Your task to perform on an android device: open app "PlayWell" (install if not already installed) and go to login screen Image 0: 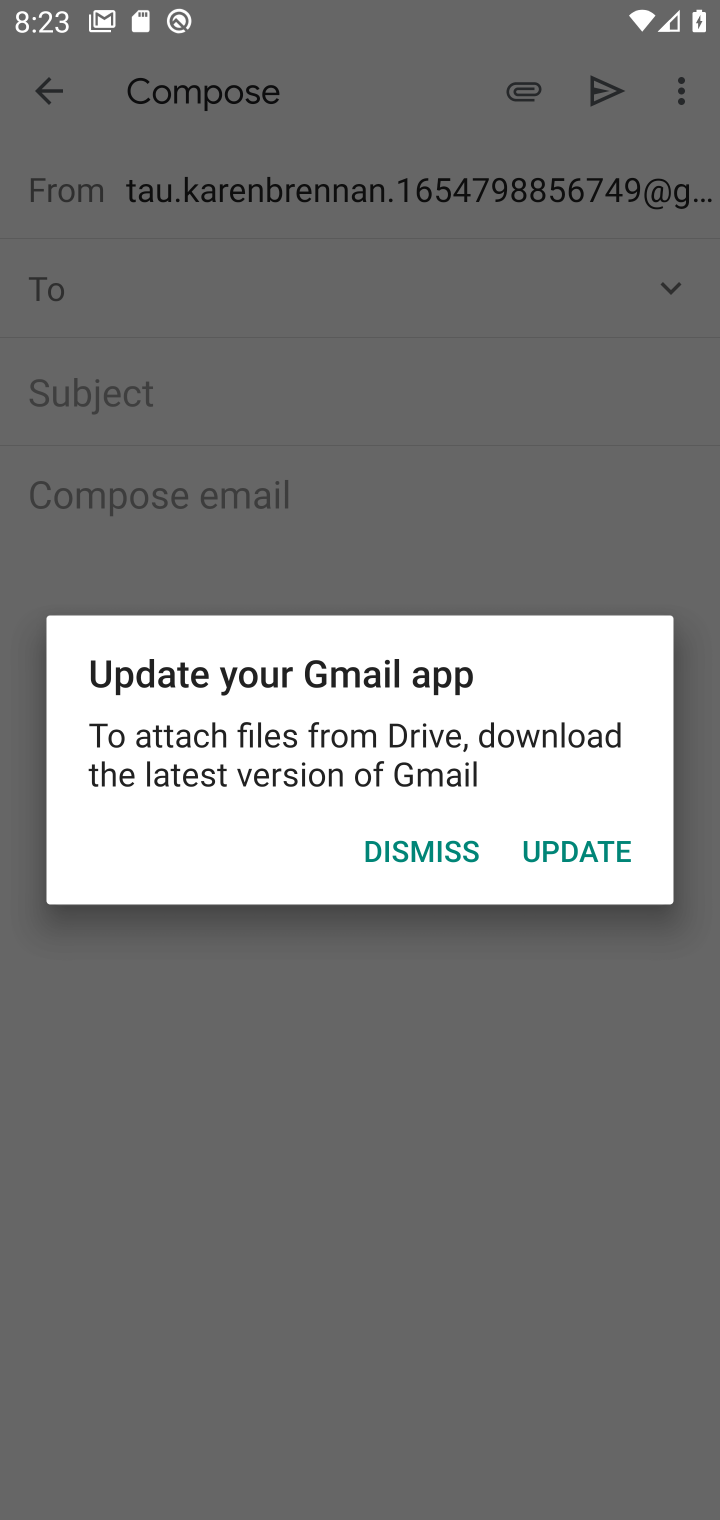
Step 0: press home button
Your task to perform on an android device: open app "PlayWell" (install if not already installed) and go to login screen Image 1: 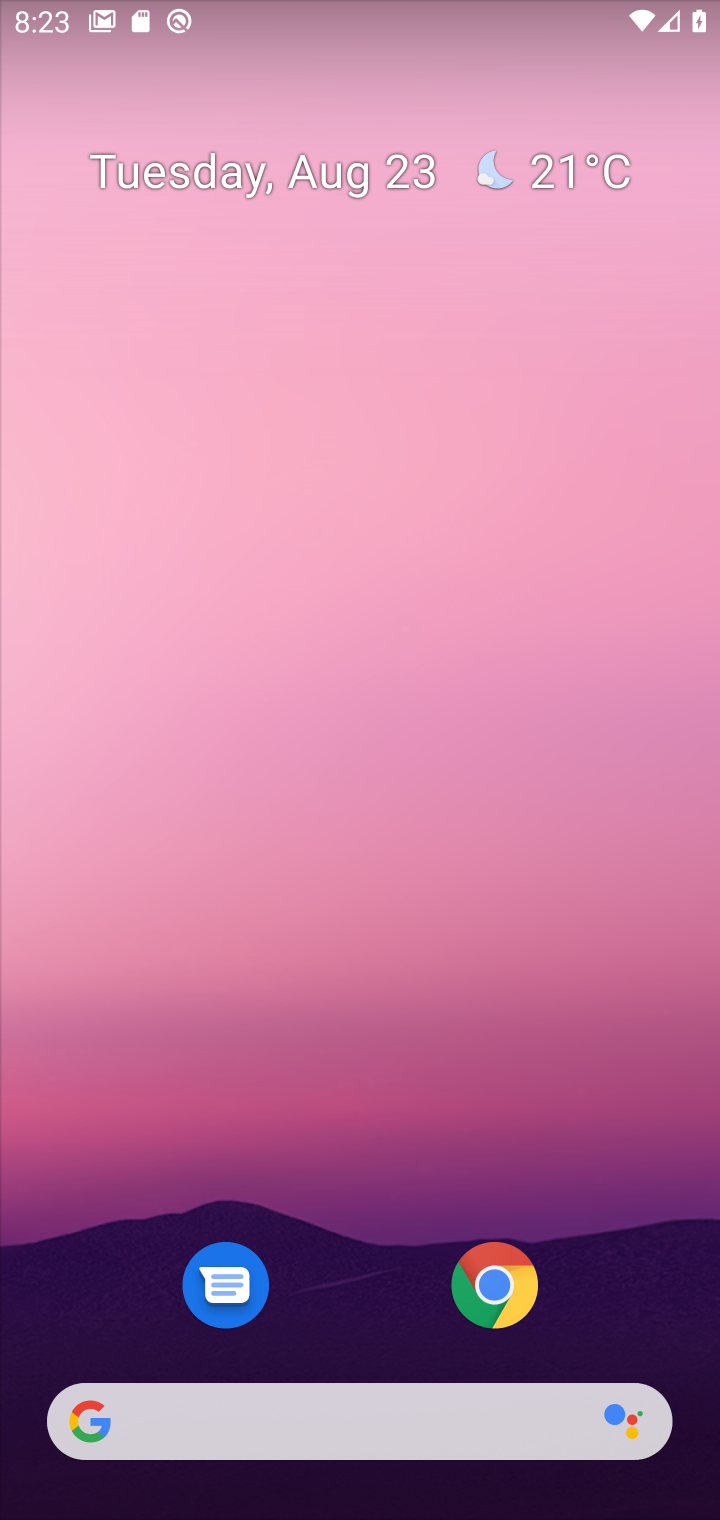
Step 1: drag from (663, 1333) to (662, 252)
Your task to perform on an android device: open app "PlayWell" (install if not already installed) and go to login screen Image 2: 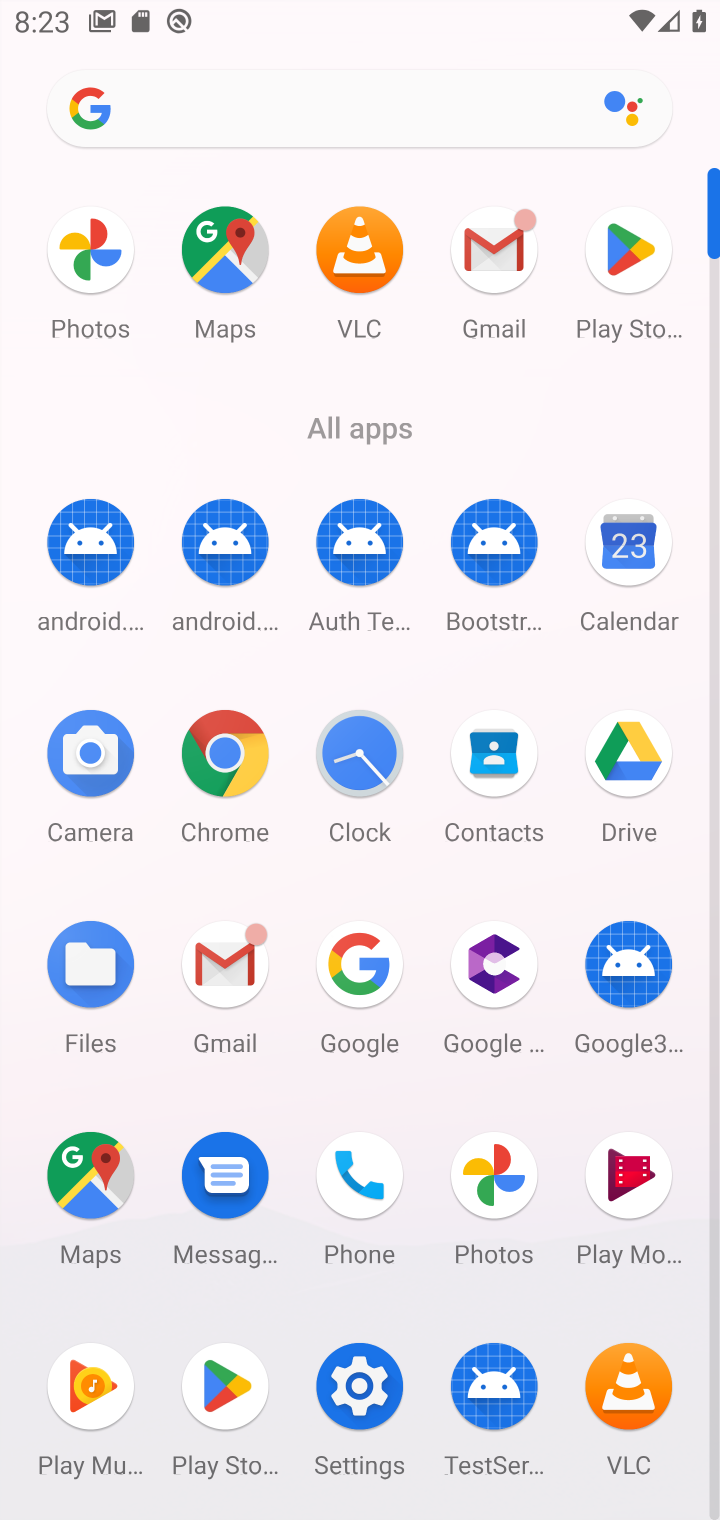
Step 2: click (223, 1386)
Your task to perform on an android device: open app "PlayWell" (install if not already installed) and go to login screen Image 3: 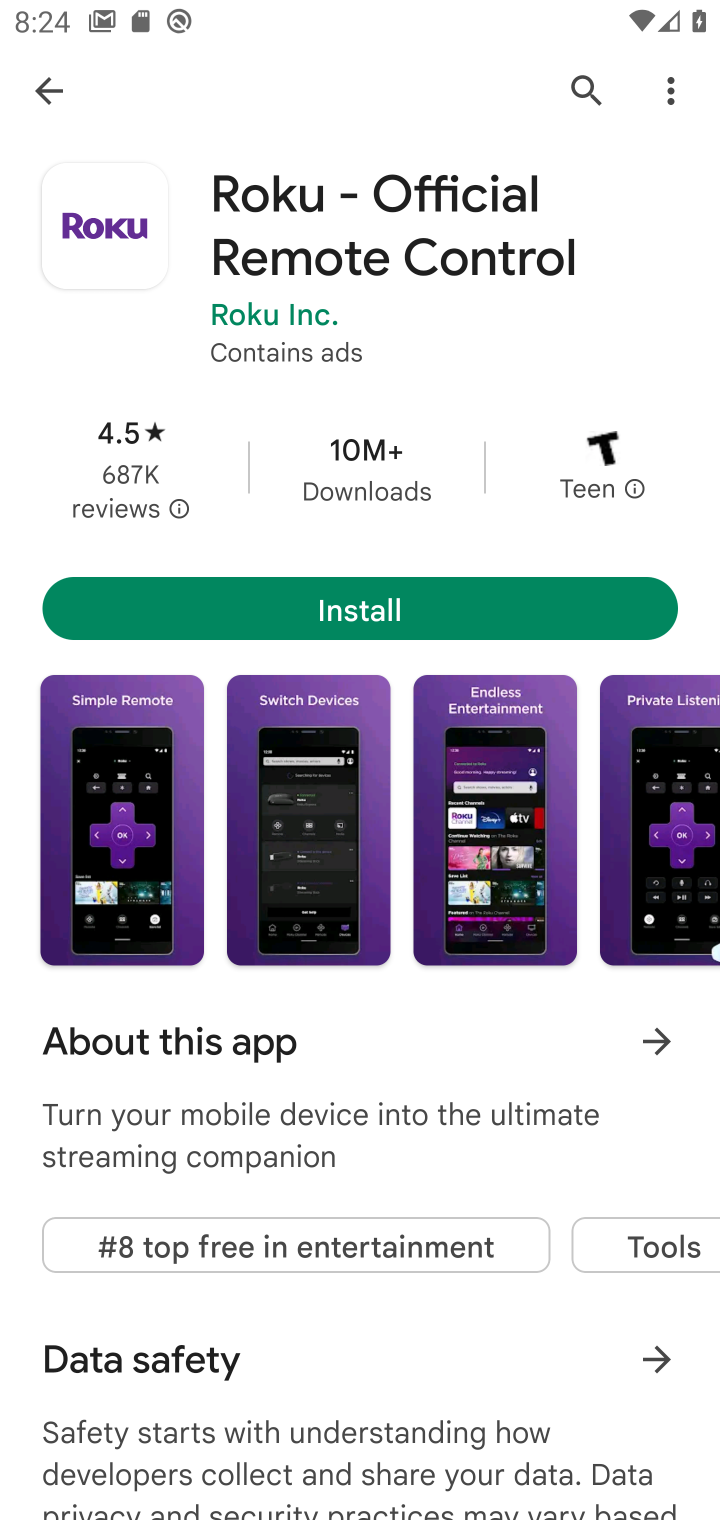
Step 3: click (580, 92)
Your task to perform on an android device: open app "PlayWell" (install if not already installed) and go to login screen Image 4: 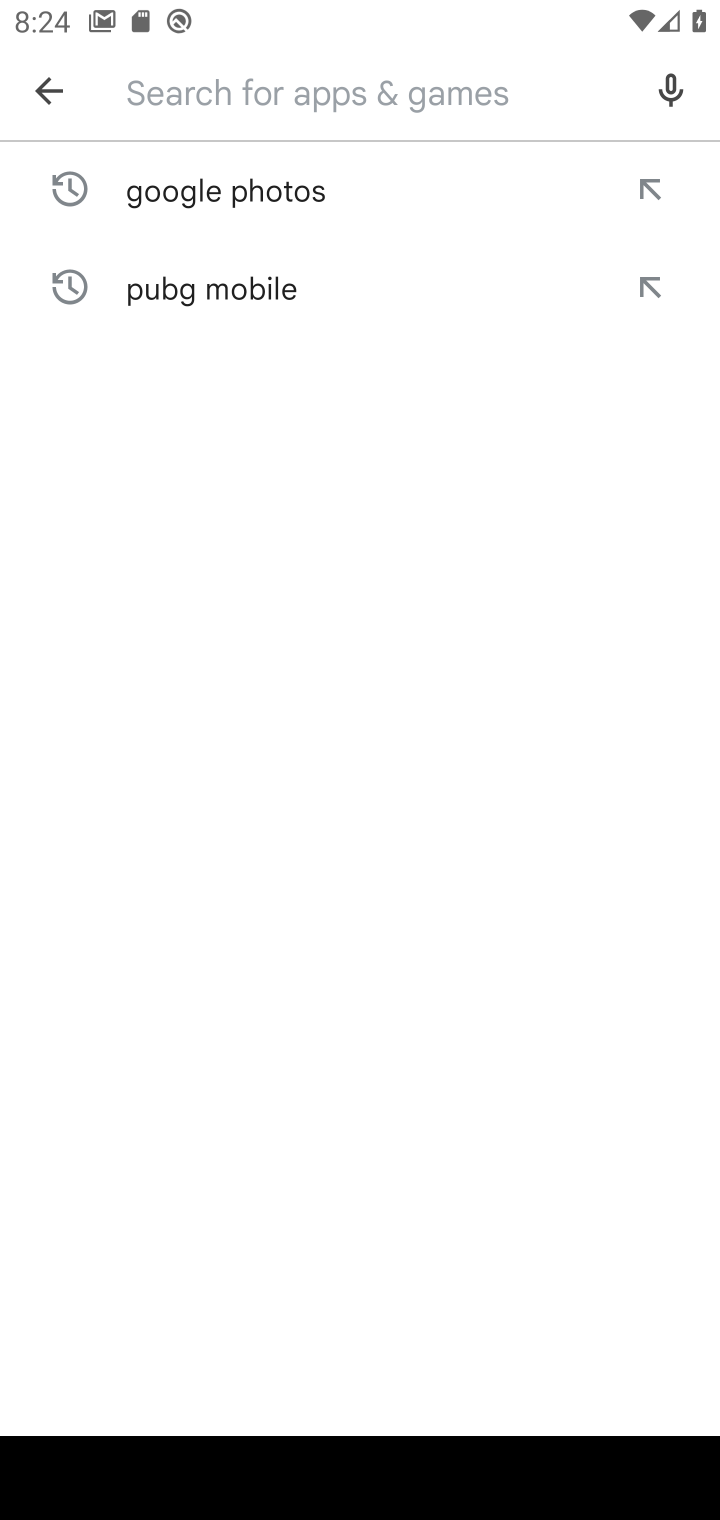
Step 4: type "PlayWell"
Your task to perform on an android device: open app "PlayWell" (install if not already installed) and go to login screen Image 5: 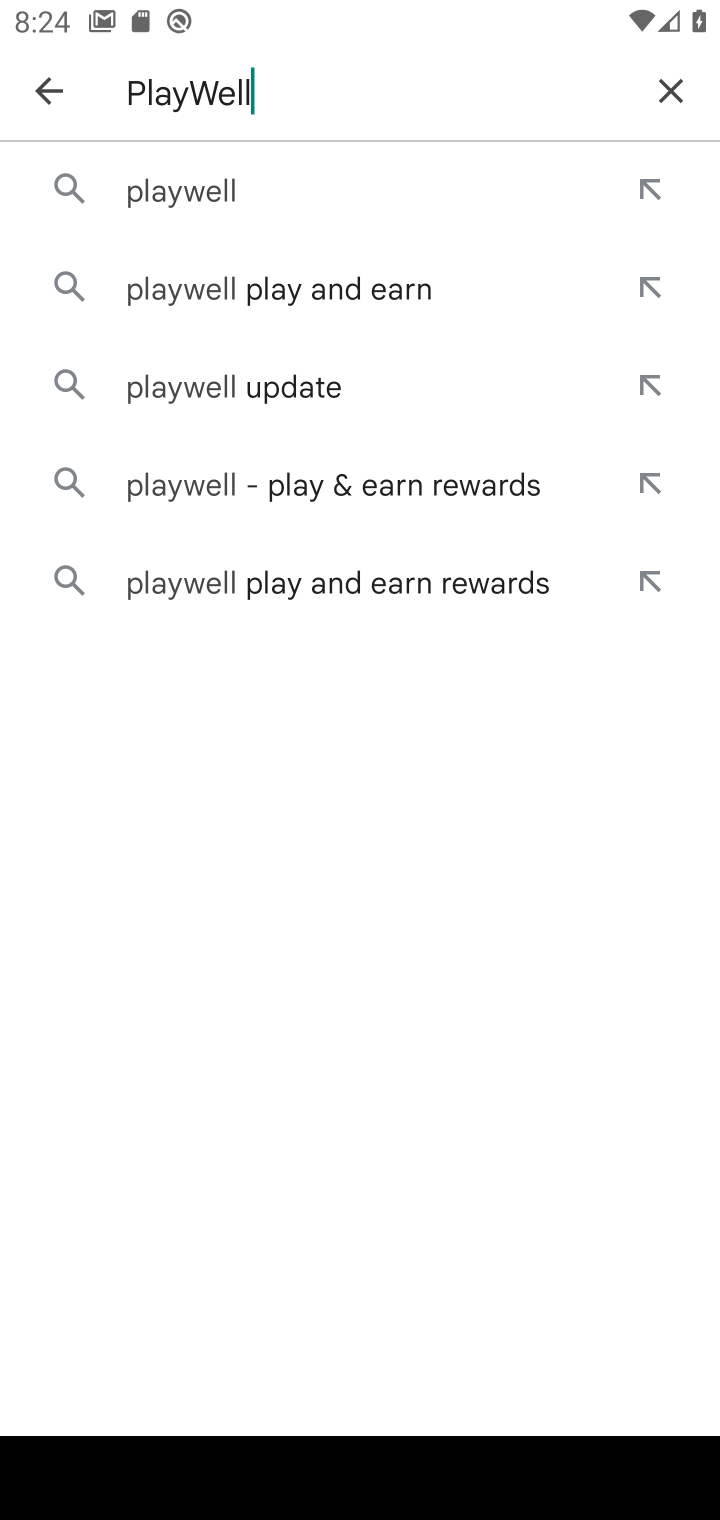
Step 5: click (160, 186)
Your task to perform on an android device: open app "PlayWell" (install if not already installed) and go to login screen Image 6: 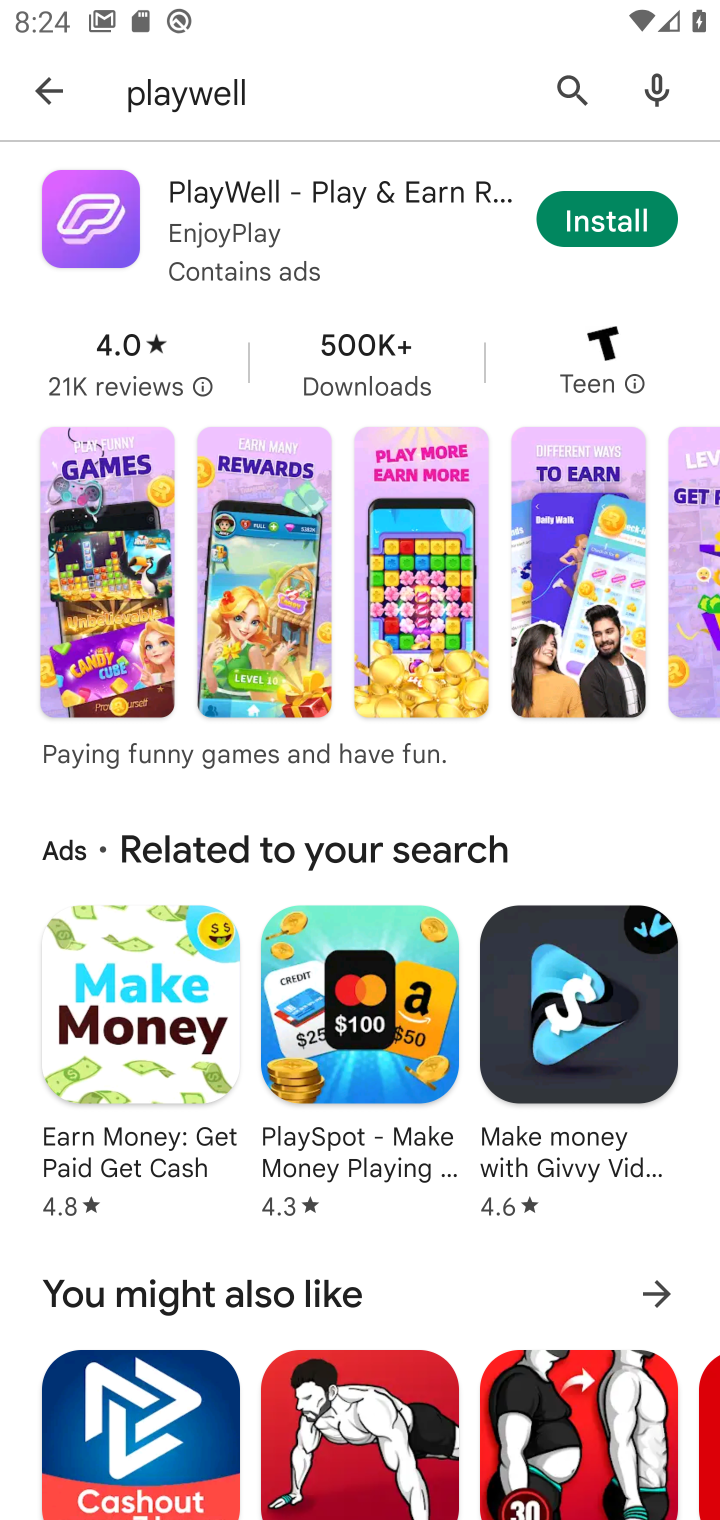
Step 6: click (192, 225)
Your task to perform on an android device: open app "PlayWell" (install if not already installed) and go to login screen Image 7: 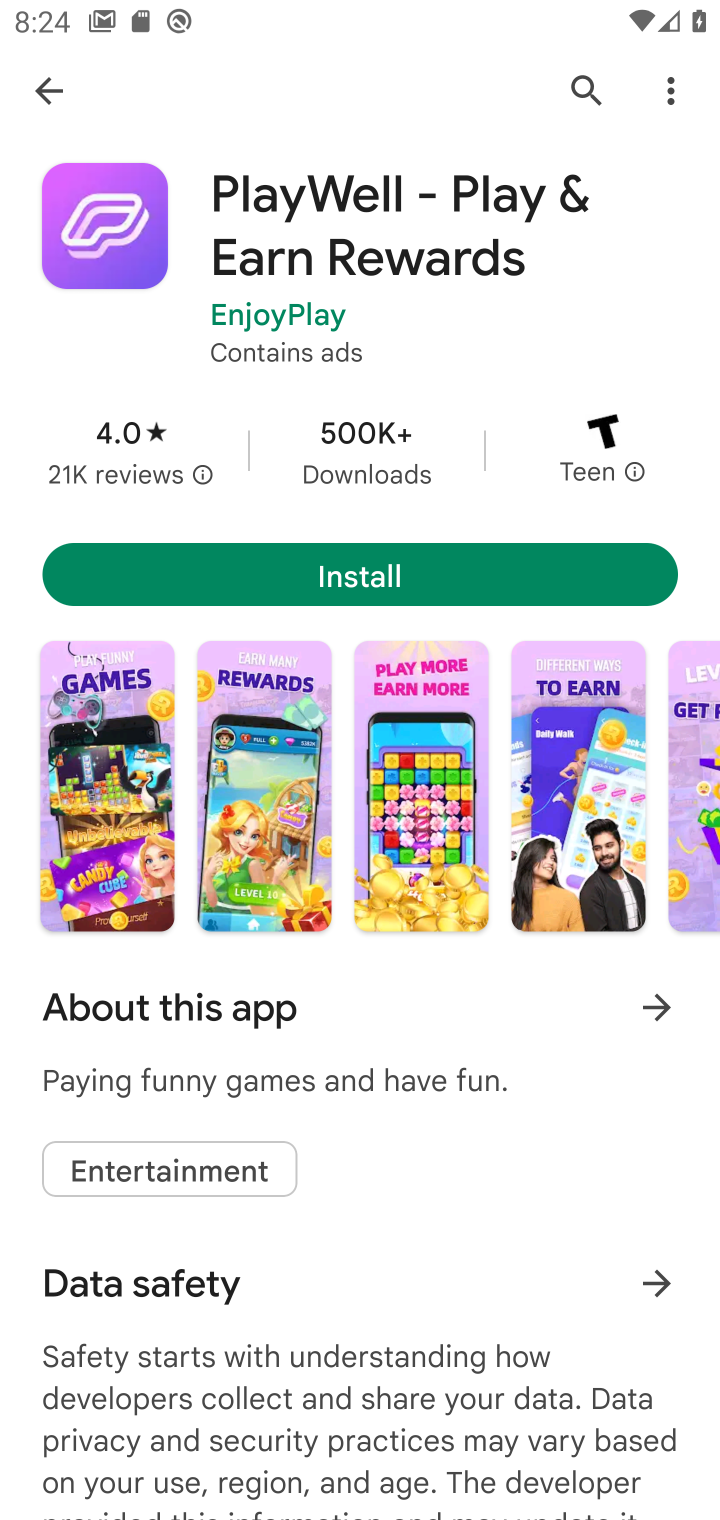
Step 7: click (350, 566)
Your task to perform on an android device: open app "PlayWell" (install if not already installed) and go to login screen Image 8: 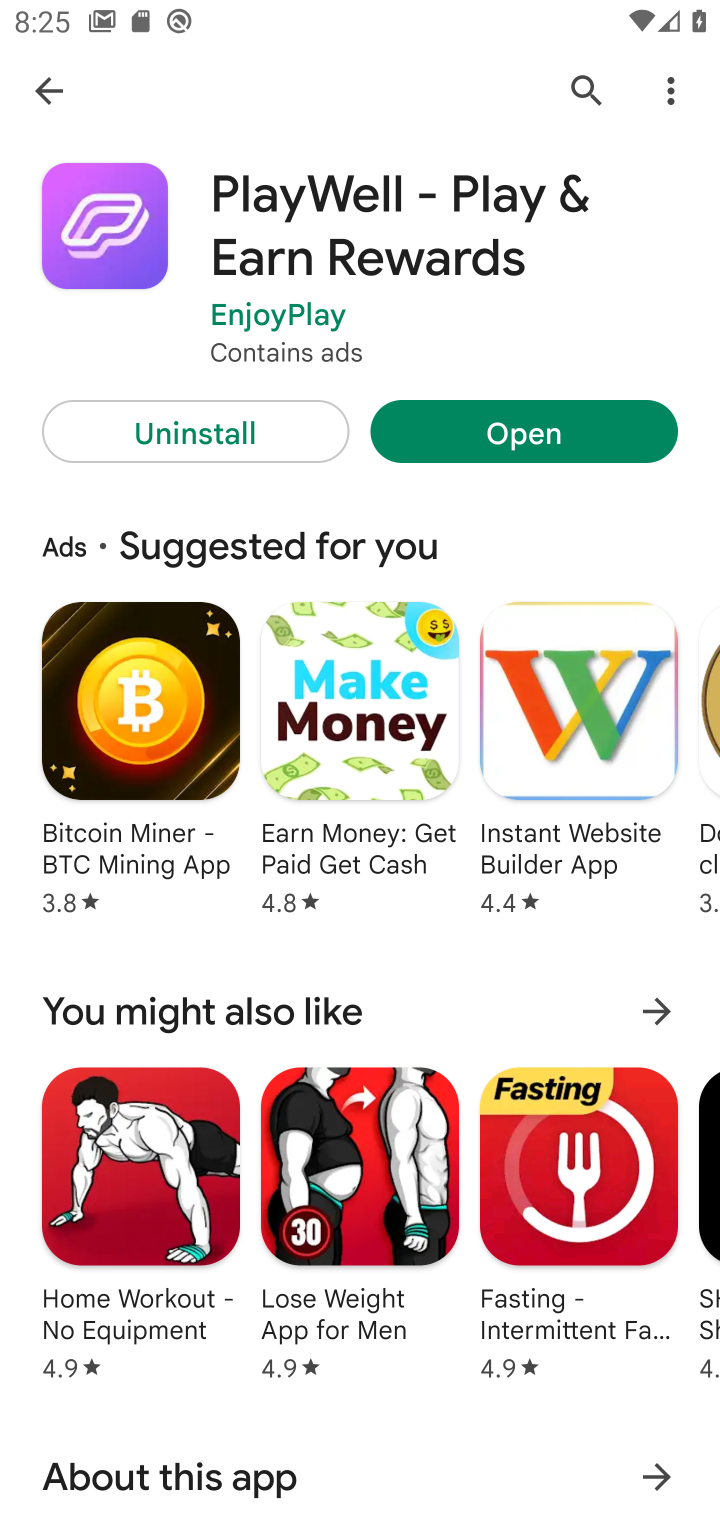
Step 8: click (523, 429)
Your task to perform on an android device: open app "PlayWell" (install if not already installed) and go to login screen Image 9: 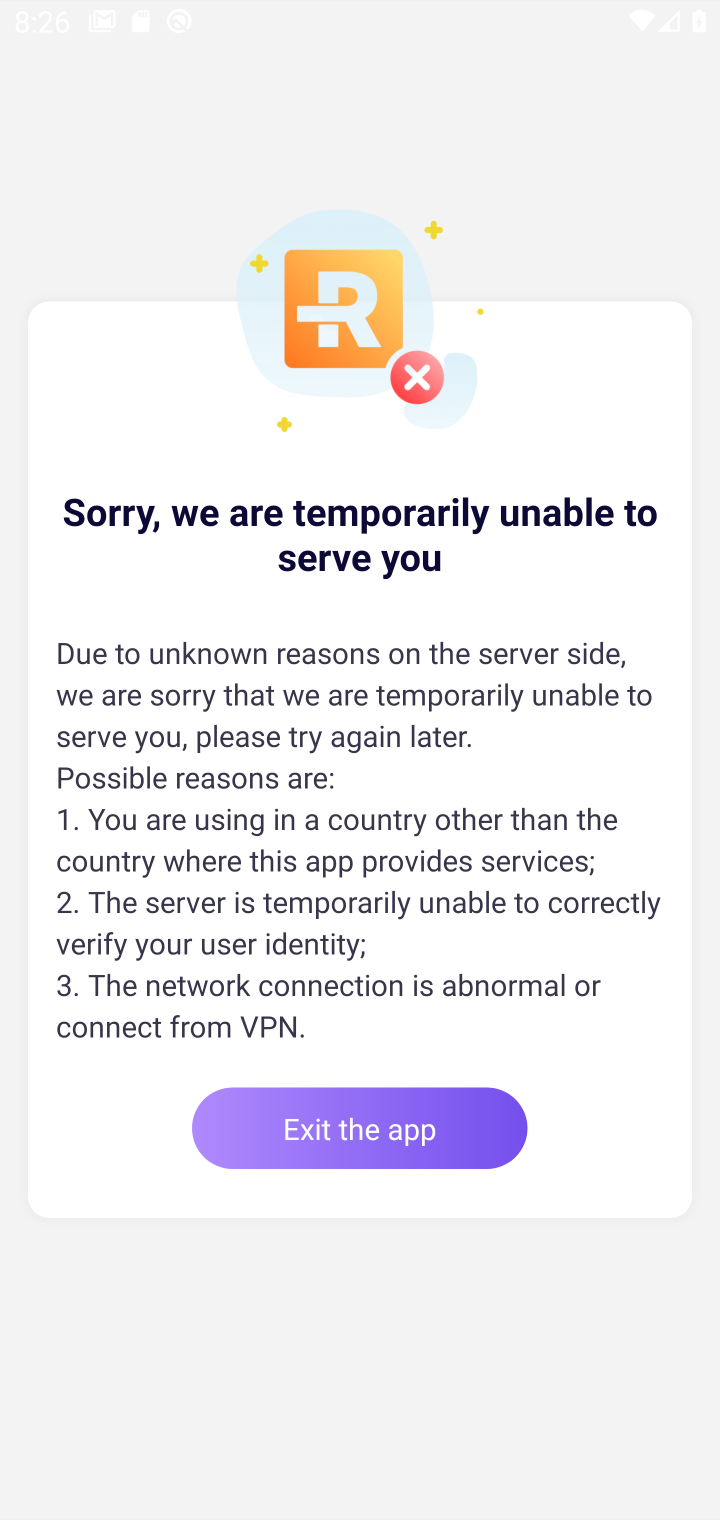
Step 9: click (414, 368)
Your task to perform on an android device: open app "PlayWell" (install if not already installed) and go to login screen Image 10: 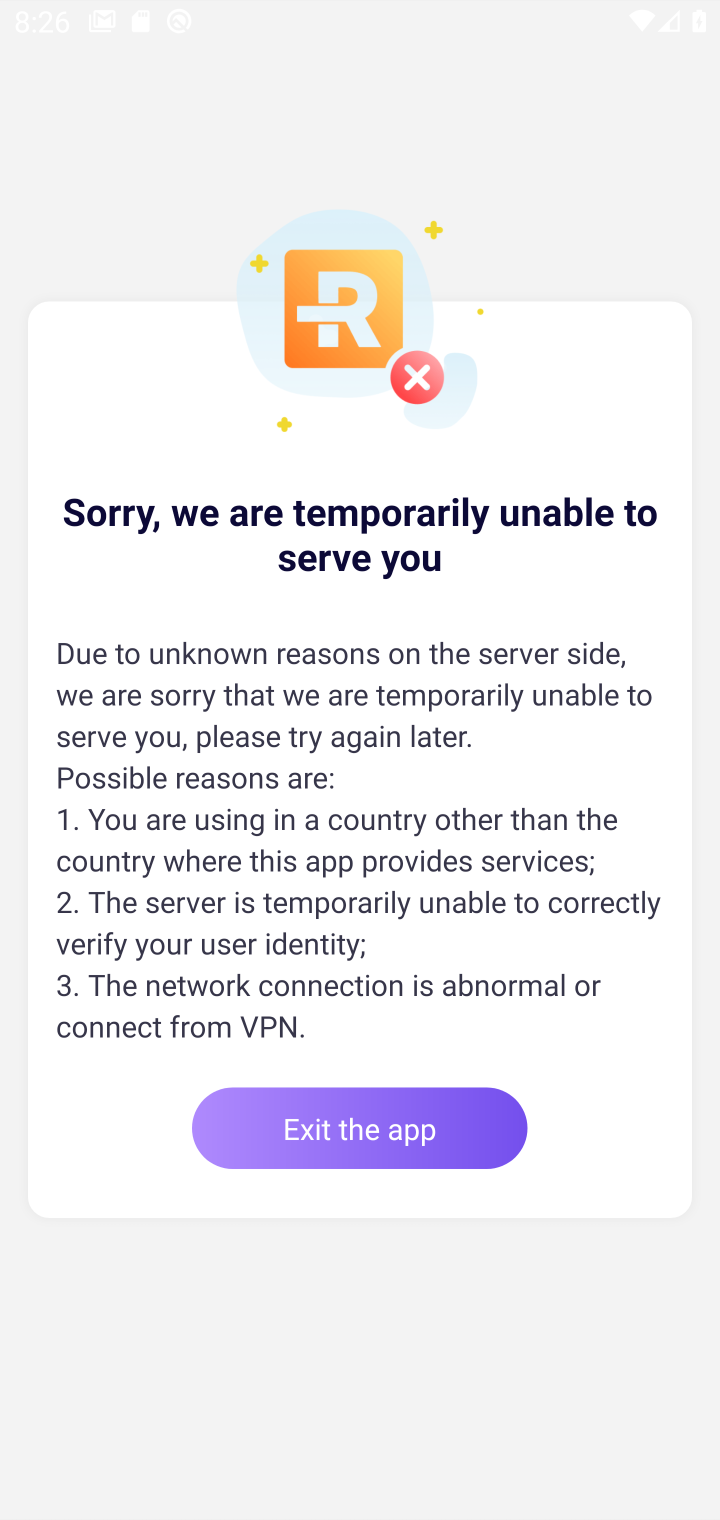
Step 10: task complete